Your task to perform on an android device: delete the emails in spam in the gmail app Image 0: 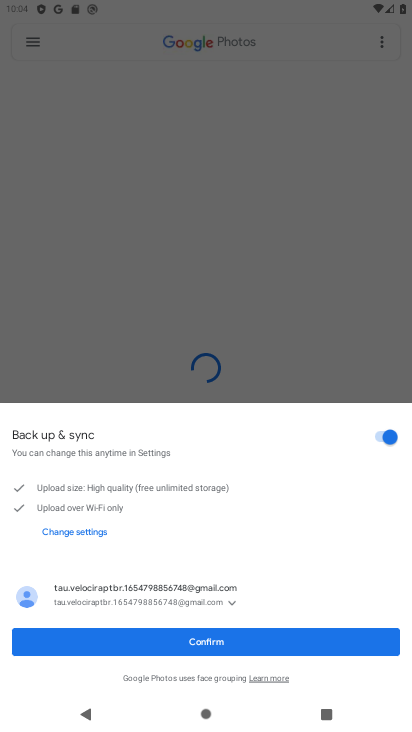
Step 0: press home button
Your task to perform on an android device: delete the emails in spam in the gmail app Image 1: 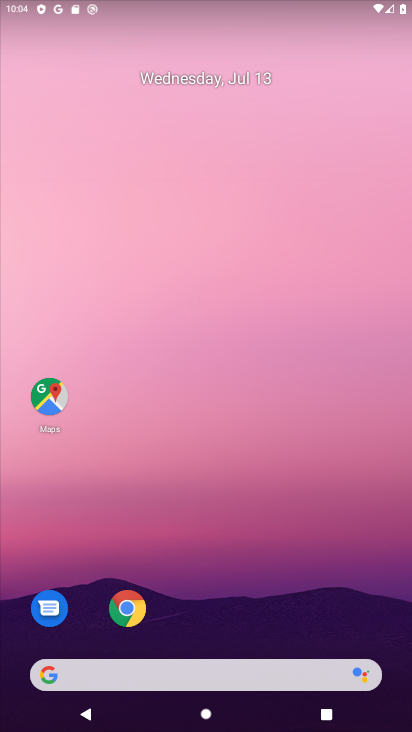
Step 1: drag from (200, 617) to (225, 126)
Your task to perform on an android device: delete the emails in spam in the gmail app Image 2: 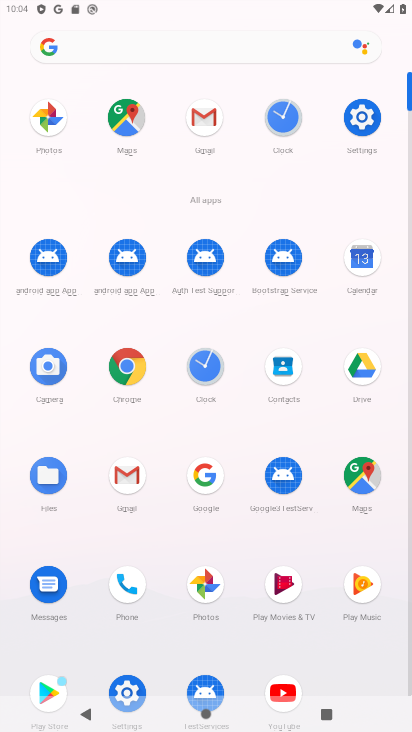
Step 2: click (203, 121)
Your task to perform on an android device: delete the emails in spam in the gmail app Image 3: 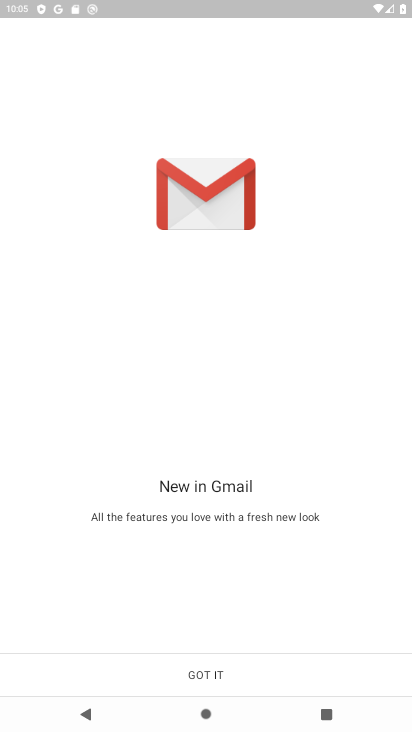
Step 3: click (202, 673)
Your task to perform on an android device: delete the emails in spam in the gmail app Image 4: 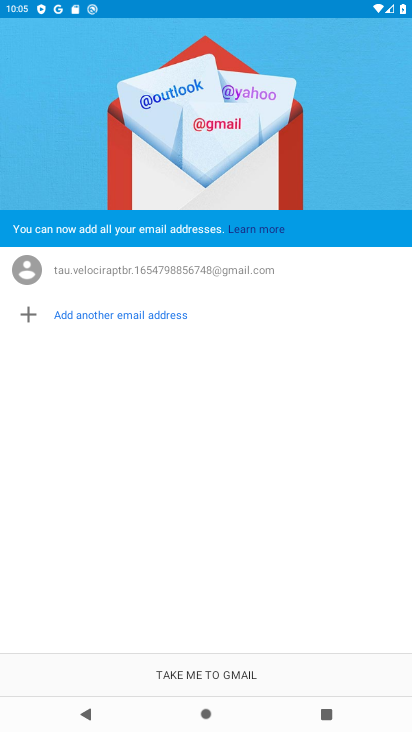
Step 4: click (202, 675)
Your task to perform on an android device: delete the emails in spam in the gmail app Image 5: 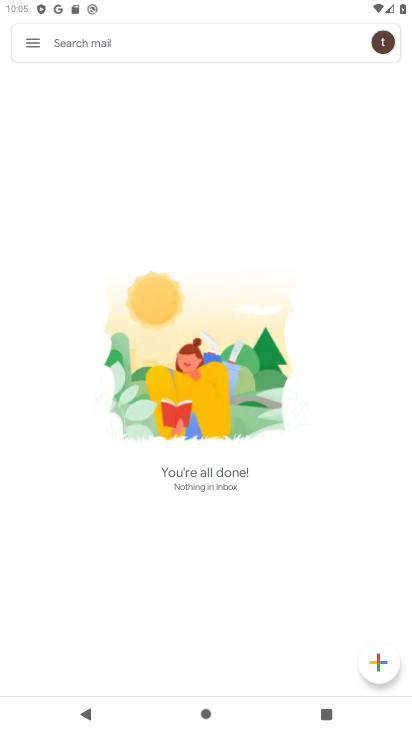
Step 5: click (32, 31)
Your task to perform on an android device: delete the emails in spam in the gmail app Image 6: 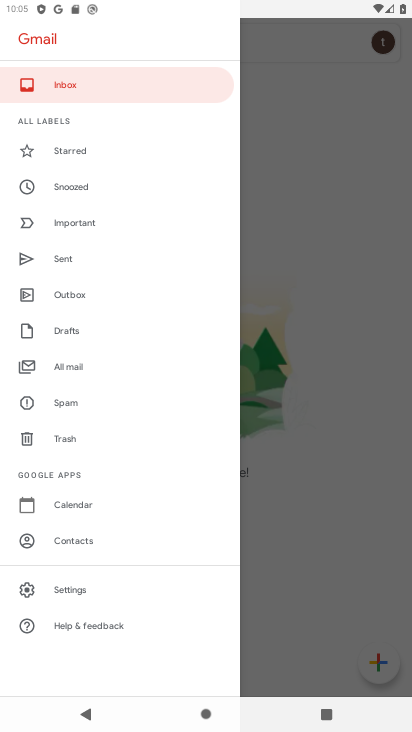
Step 6: click (98, 401)
Your task to perform on an android device: delete the emails in spam in the gmail app Image 7: 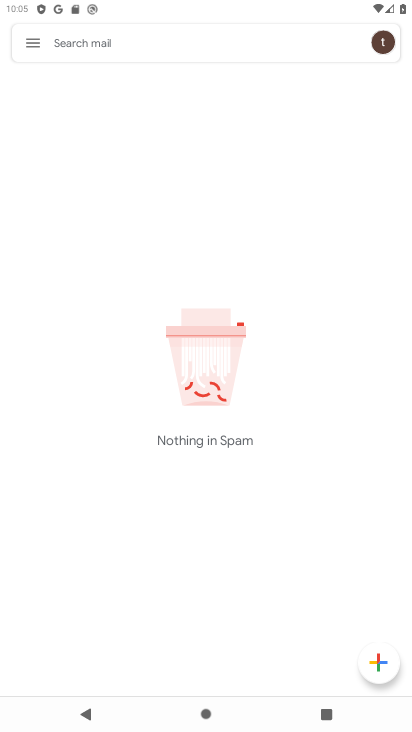
Step 7: task complete